Your task to perform on an android device: toggle data saver in the chrome app Image 0: 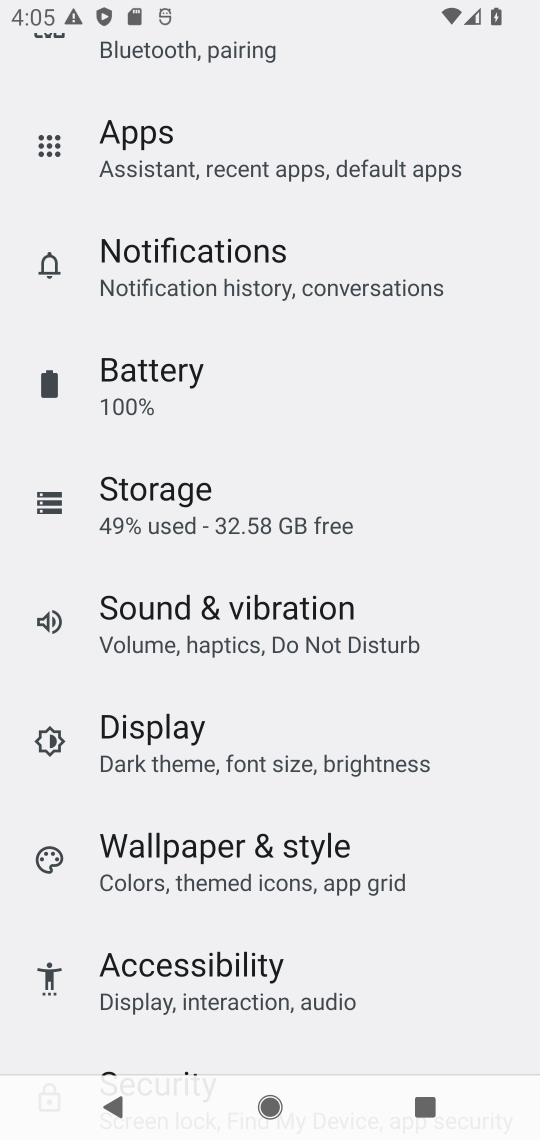
Step 0: press home button
Your task to perform on an android device: toggle data saver in the chrome app Image 1: 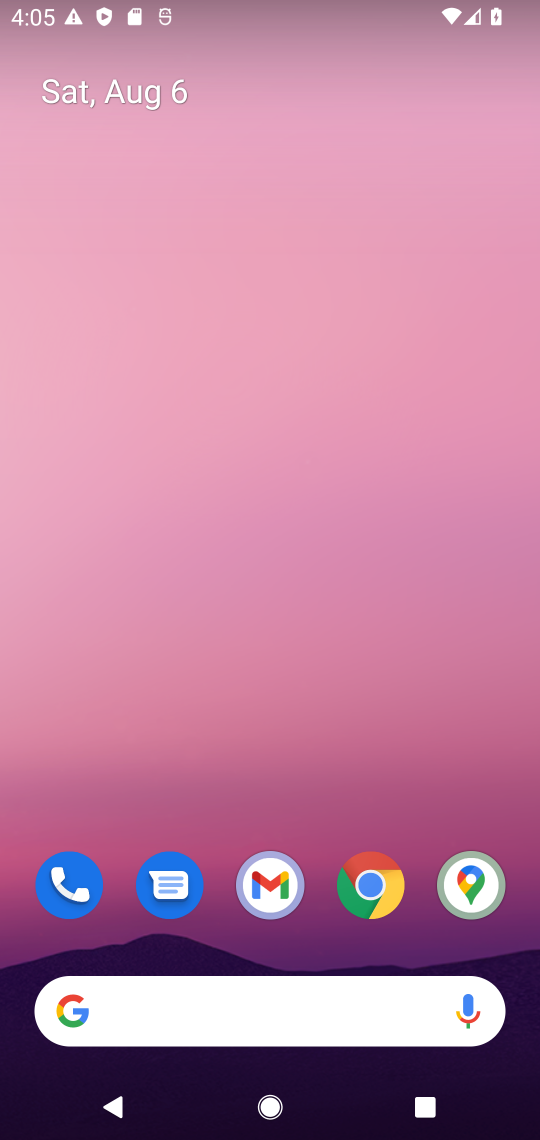
Step 1: click (394, 880)
Your task to perform on an android device: toggle data saver in the chrome app Image 2: 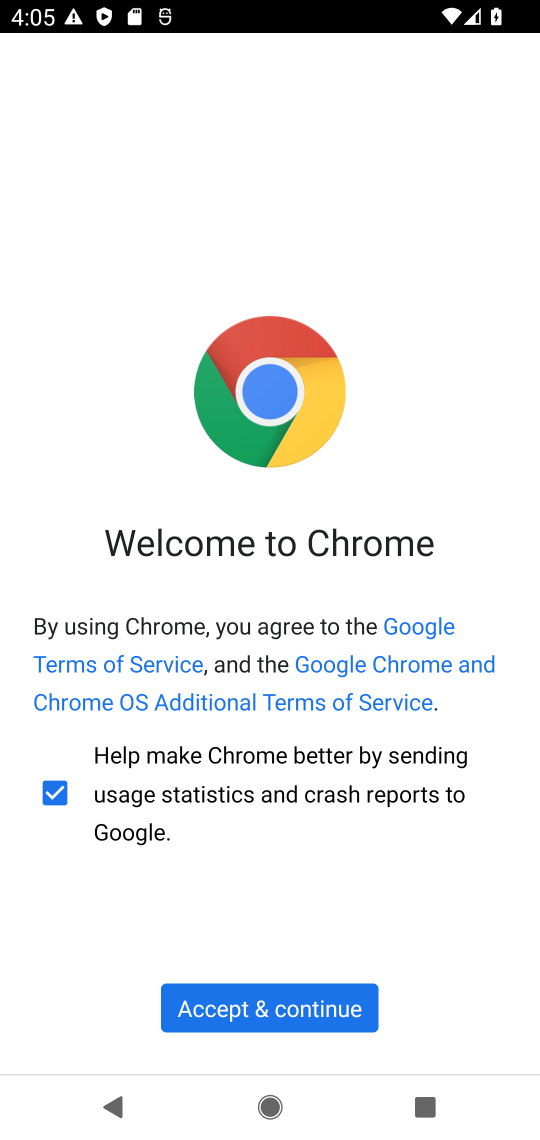
Step 2: task complete